Your task to perform on an android device: Is it going to rain today? Image 0: 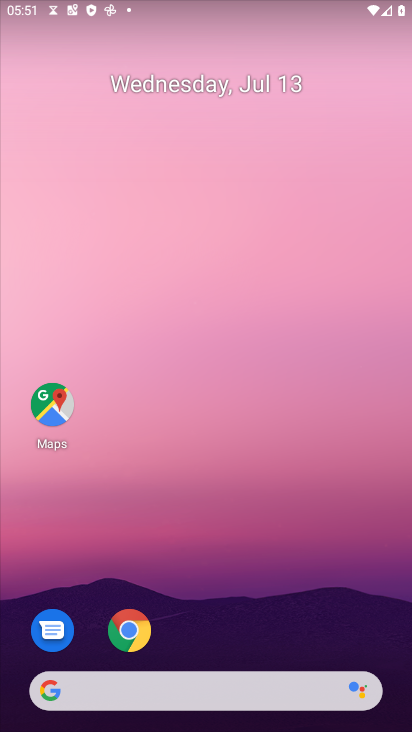
Step 0: drag from (146, 697) to (228, 186)
Your task to perform on an android device: Is it going to rain today? Image 1: 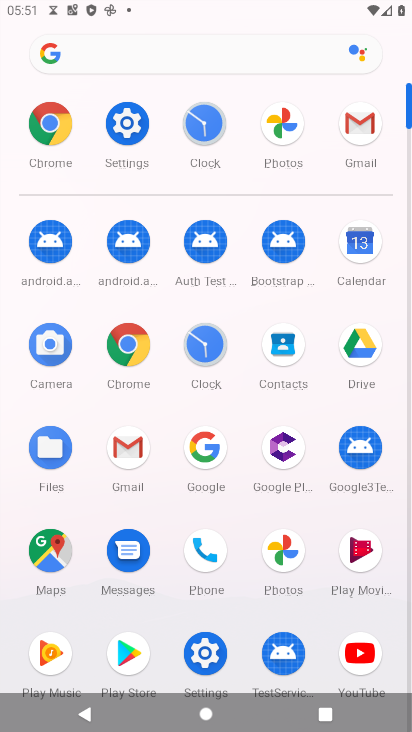
Step 1: click (135, 349)
Your task to perform on an android device: Is it going to rain today? Image 2: 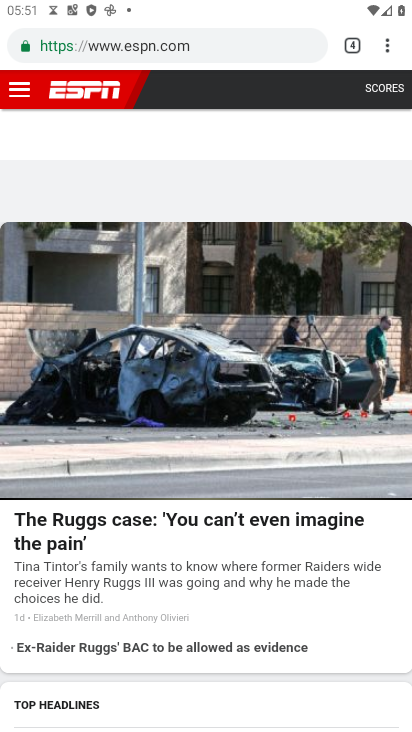
Step 2: click (225, 51)
Your task to perform on an android device: Is it going to rain today? Image 3: 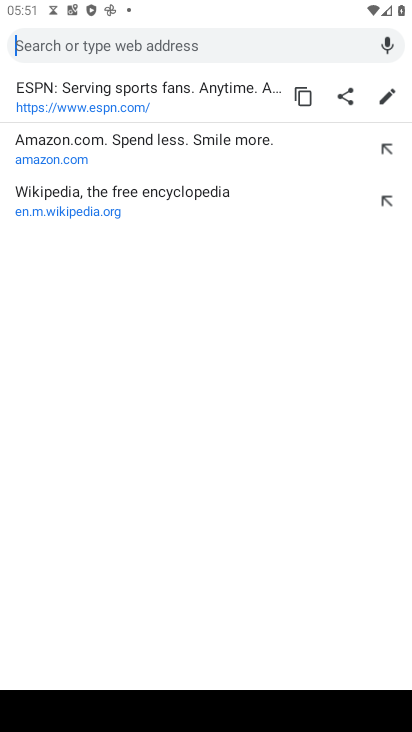
Step 3: type "is it going to rain today"
Your task to perform on an android device: Is it going to rain today? Image 4: 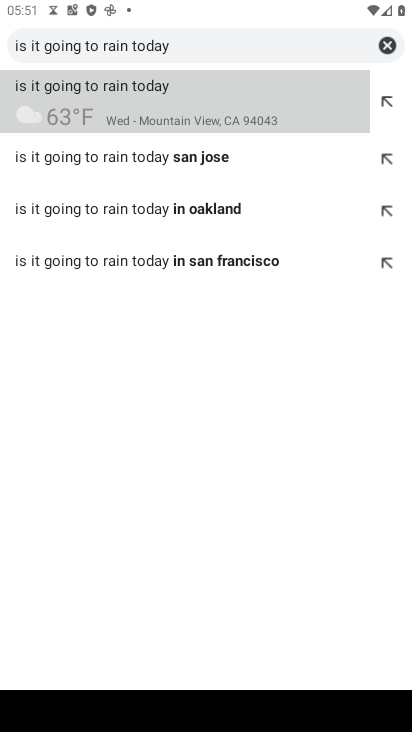
Step 4: click (281, 107)
Your task to perform on an android device: Is it going to rain today? Image 5: 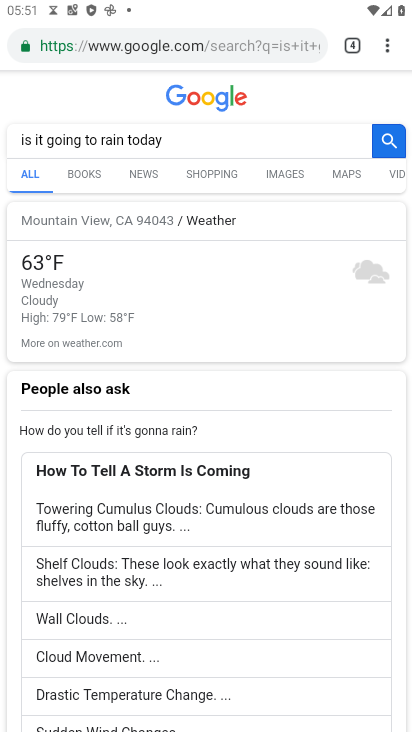
Step 5: task complete